Your task to perform on an android device: Go to ESPN.com Image 0: 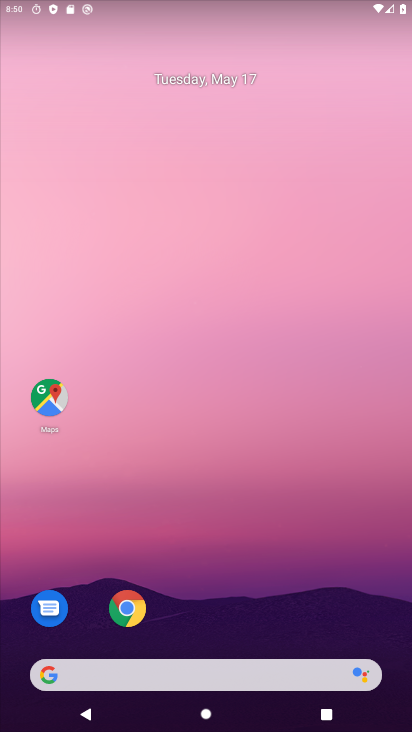
Step 0: drag from (385, 618) to (356, 83)
Your task to perform on an android device: Go to ESPN.com Image 1: 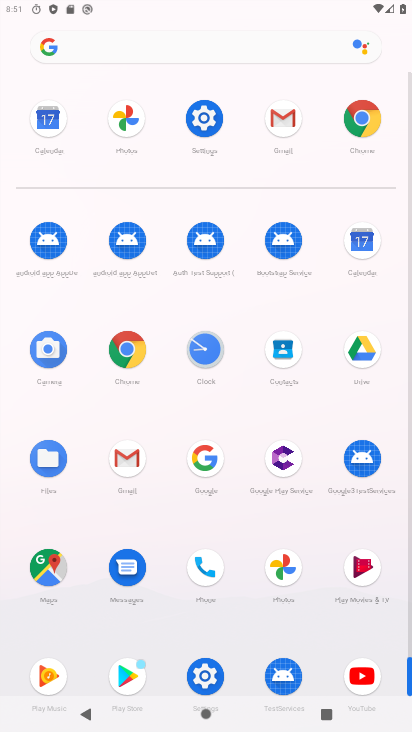
Step 1: click (217, 125)
Your task to perform on an android device: Go to ESPN.com Image 2: 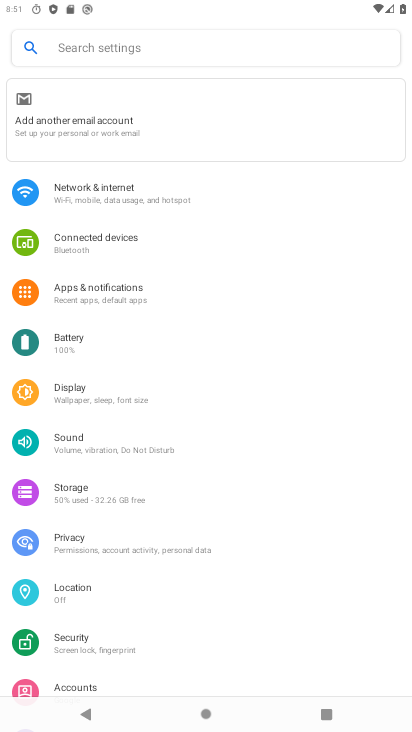
Step 2: press home button
Your task to perform on an android device: Go to ESPN.com Image 3: 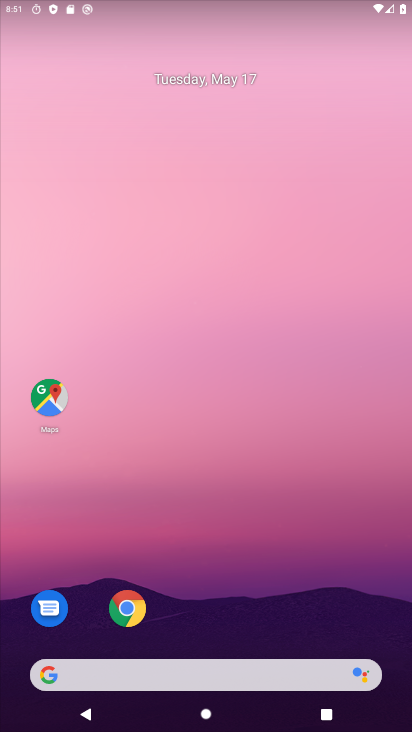
Step 3: drag from (390, 616) to (354, 91)
Your task to perform on an android device: Go to ESPN.com Image 4: 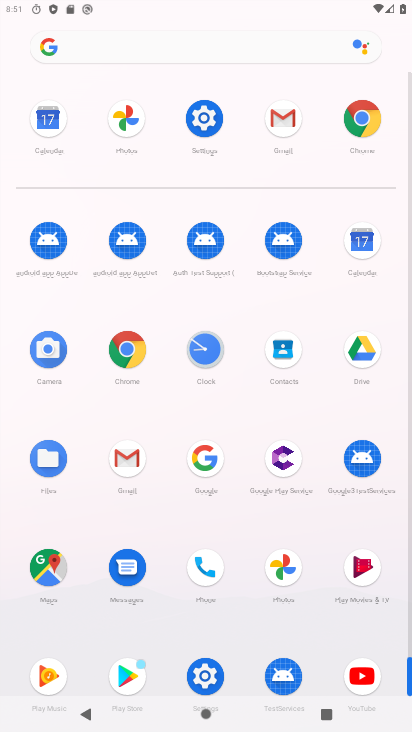
Step 4: click (117, 363)
Your task to perform on an android device: Go to ESPN.com Image 5: 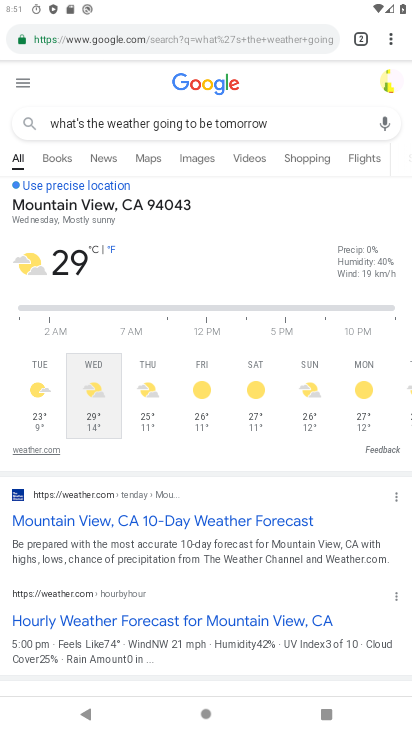
Step 5: click (164, 39)
Your task to perform on an android device: Go to ESPN.com Image 6: 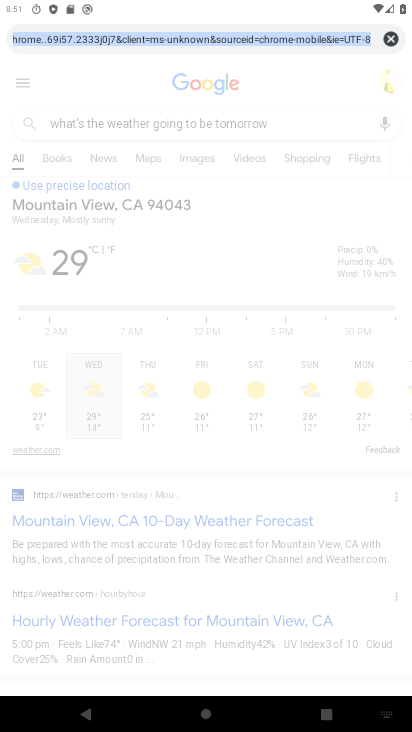
Step 6: click (393, 40)
Your task to perform on an android device: Go to ESPN.com Image 7: 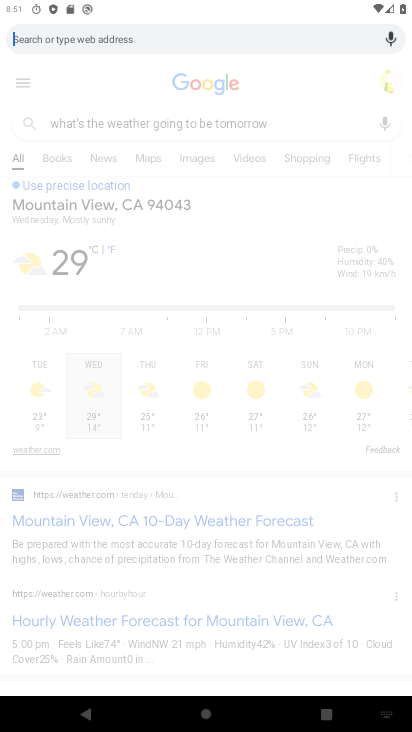
Step 7: type "espn.com"
Your task to perform on an android device: Go to ESPN.com Image 8: 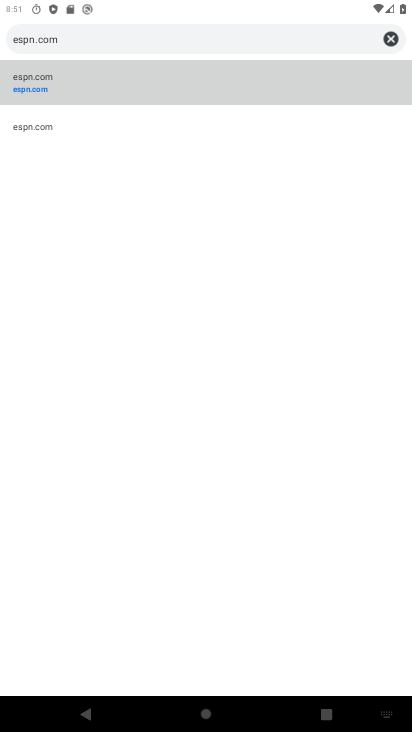
Step 8: click (44, 98)
Your task to perform on an android device: Go to ESPN.com Image 9: 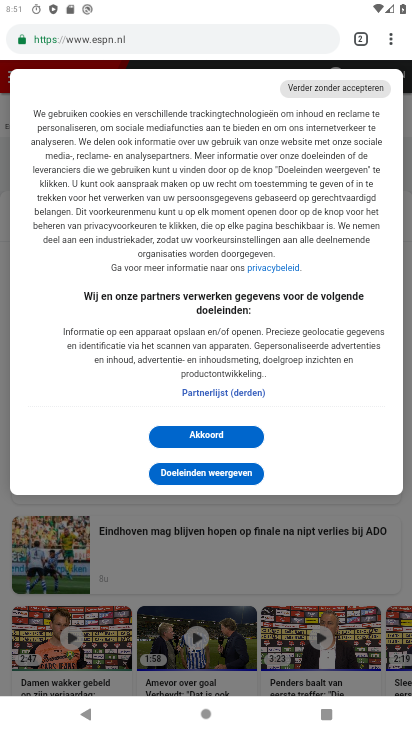
Step 9: task complete